Your task to perform on an android device: Go to sound settings Image 0: 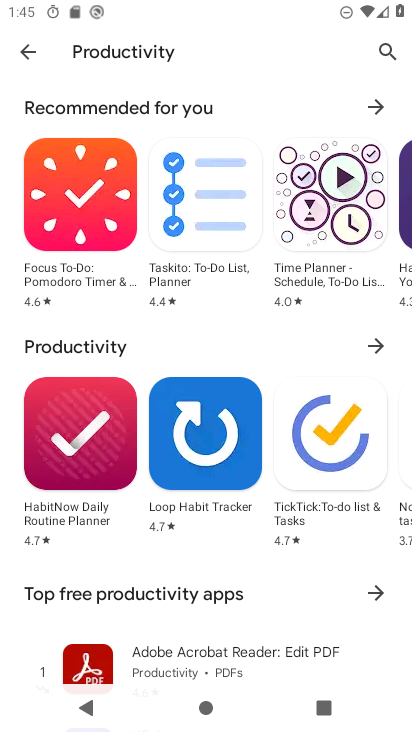
Step 0: press home button
Your task to perform on an android device: Go to sound settings Image 1: 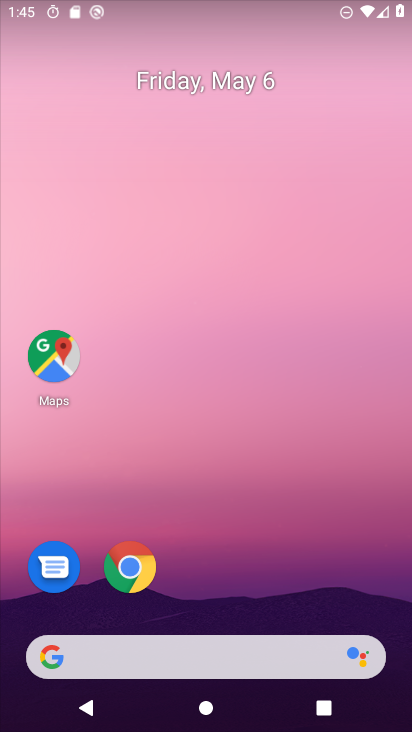
Step 1: drag from (322, 599) to (321, 0)
Your task to perform on an android device: Go to sound settings Image 2: 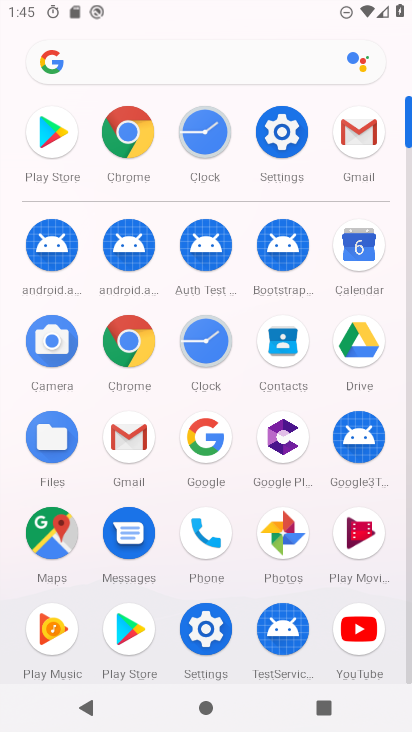
Step 2: click (283, 138)
Your task to perform on an android device: Go to sound settings Image 3: 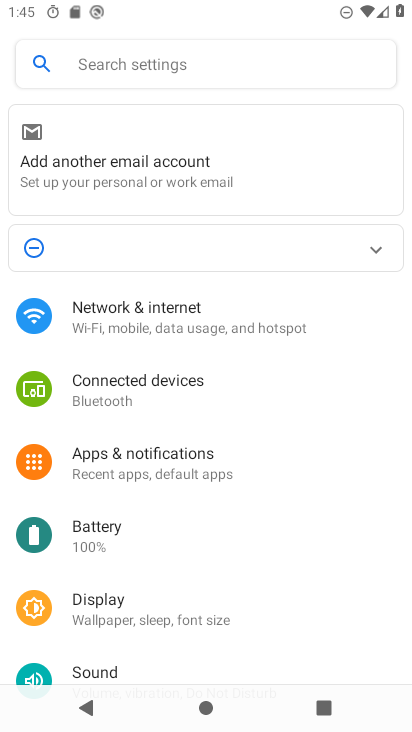
Step 3: drag from (281, 599) to (275, 390)
Your task to perform on an android device: Go to sound settings Image 4: 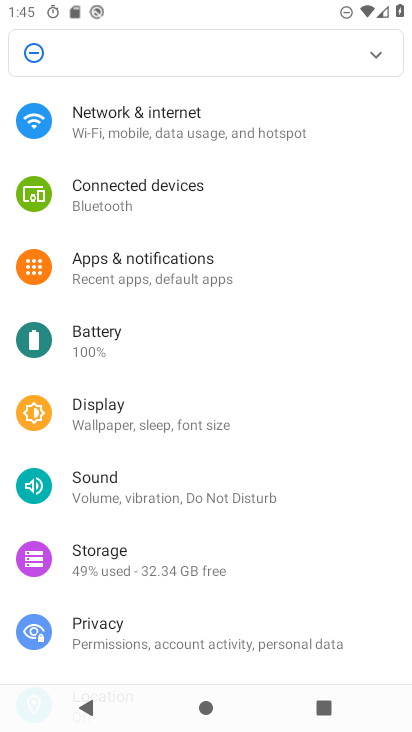
Step 4: click (88, 485)
Your task to perform on an android device: Go to sound settings Image 5: 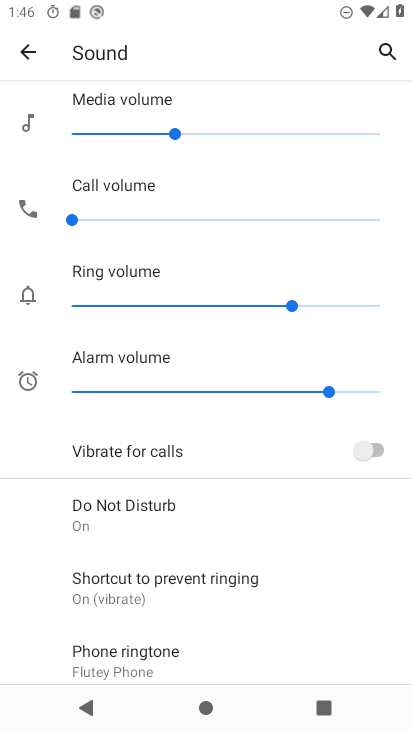
Step 5: task complete